Your task to perform on an android device: open the mobile data screen to see how much data has been used Image 0: 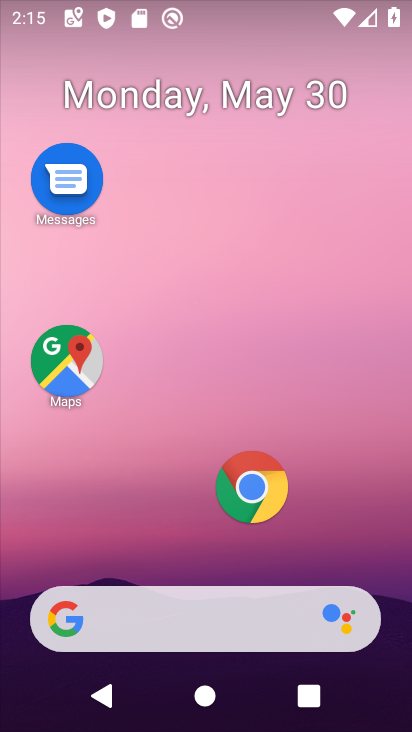
Step 0: drag from (300, 528) to (0, 318)
Your task to perform on an android device: open the mobile data screen to see how much data has been used Image 1: 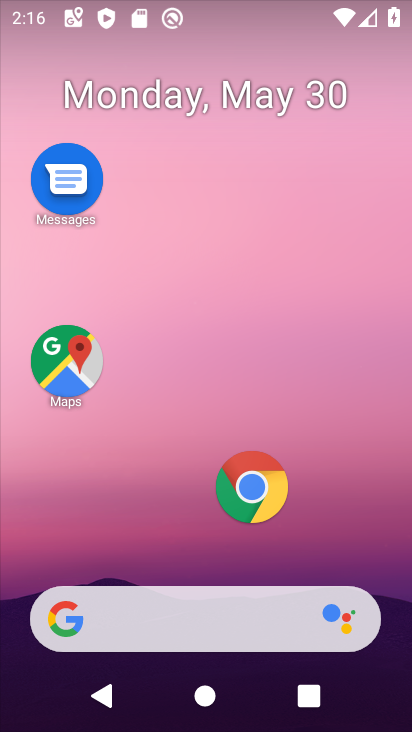
Step 1: click (156, 195)
Your task to perform on an android device: open the mobile data screen to see how much data has been used Image 2: 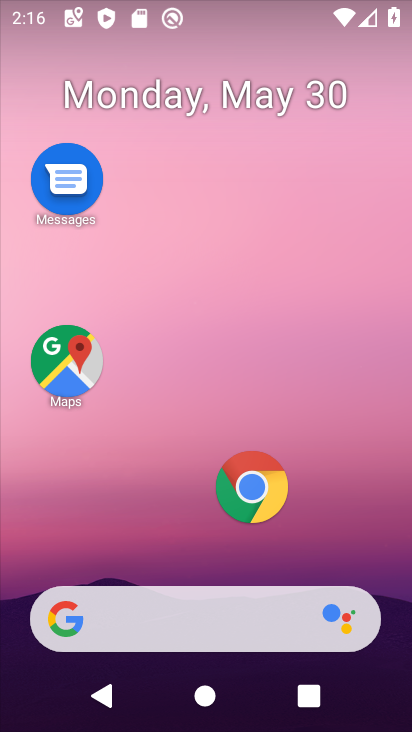
Step 2: drag from (282, 479) to (311, 110)
Your task to perform on an android device: open the mobile data screen to see how much data has been used Image 3: 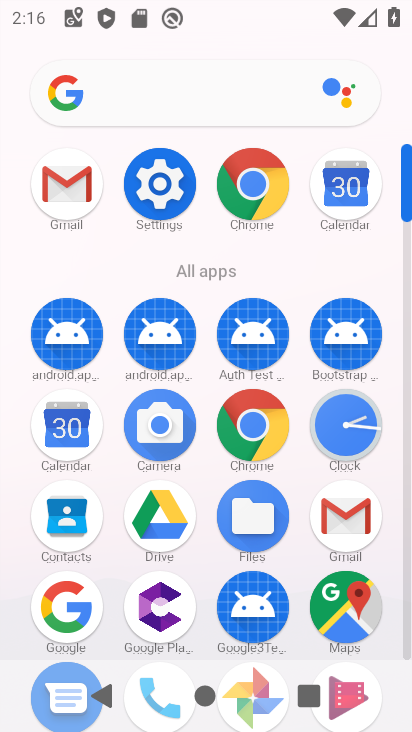
Step 3: click (159, 195)
Your task to perform on an android device: open the mobile data screen to see how much data has been used Image 4: 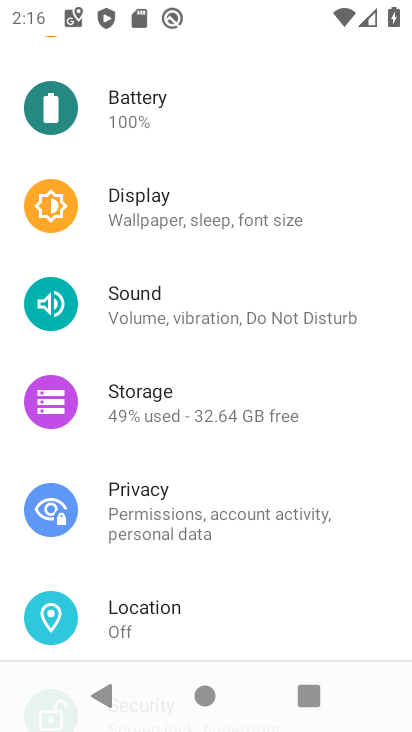
Step 4: drag from (200, 196) to (211, 711)
Your task to perform on an android device: open the mobile data screen to see how much data has been used Image 5: 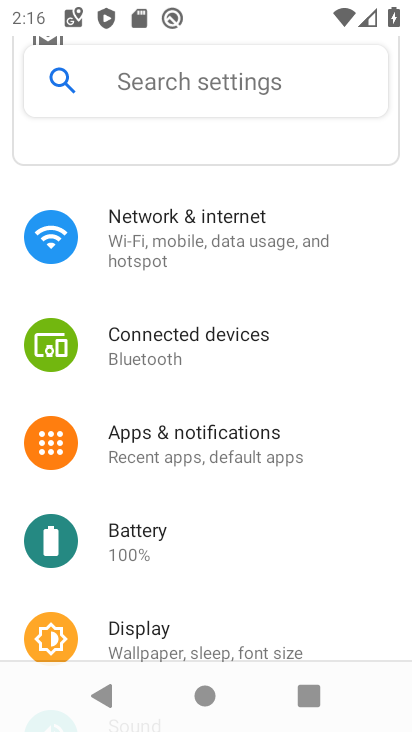
Step 5: click (164, 238)
Your task to perform on an android device: open the mobile data screen to see how much data has been used Image 6: 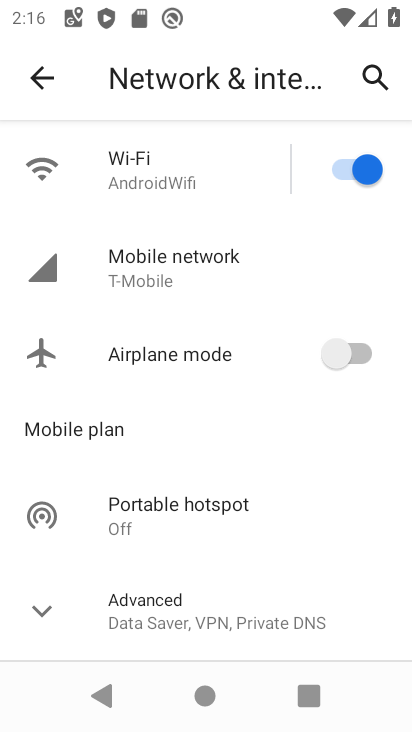
Step 6: click (183, 272)
Your task to perform on an android device: open the mobile data screen to see how much data has been used Image 7: 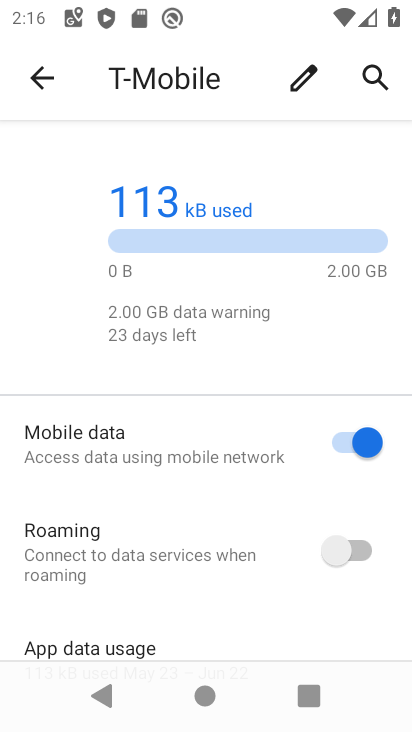
Step 7: task complete